Your task to perform on an android device: snooze an email in the gmail app Image 0: 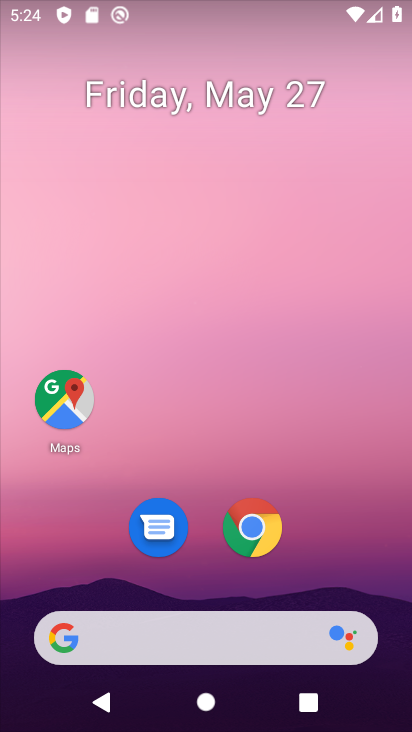
Step 0: drag from (319, 570) to (278, 214)
Your task to perform on an android device: snooze an email in the gmail app Image 1: 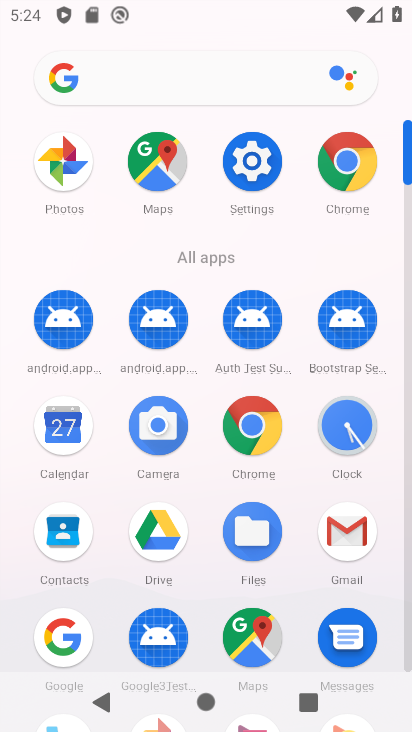
Step 1: click (347, 538)
Your task to perform on an android device: snooze an email in the gmail app Image 2: 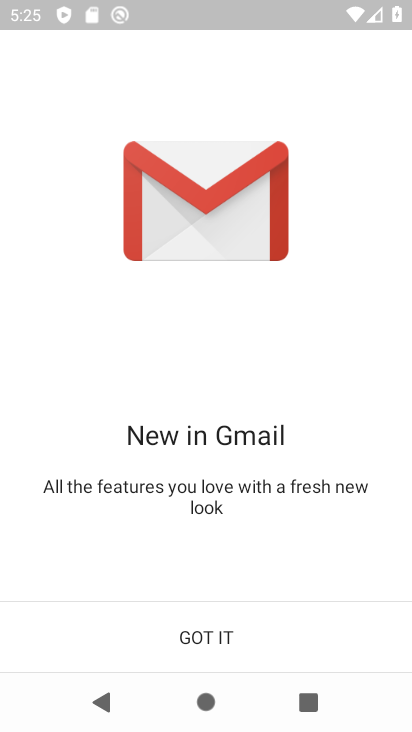
Step 2: click (220, 640)
Your task to perform on an android device: snooze an email in the gmail app Image 3: 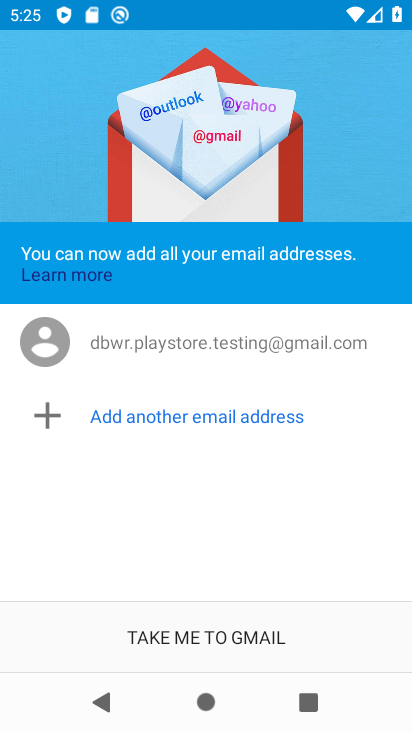
Step 3: click (220, 640)
Your task to perform on an android device: snooze an email in the gmail app Image 4: 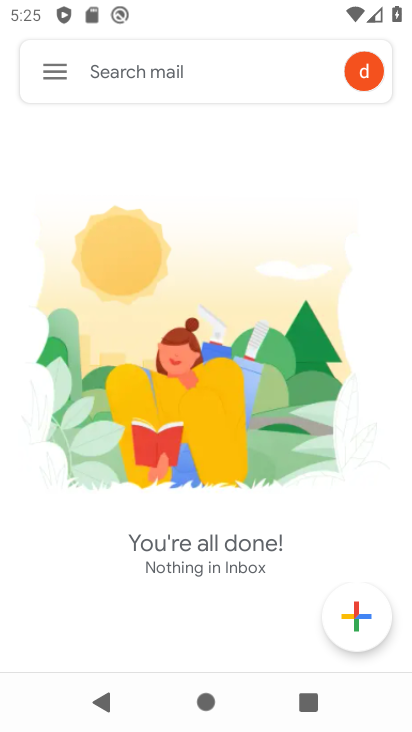
Step 4: click (61, 70)
Your task to perform on an android device: snooze an email in the gmail app Image 5: 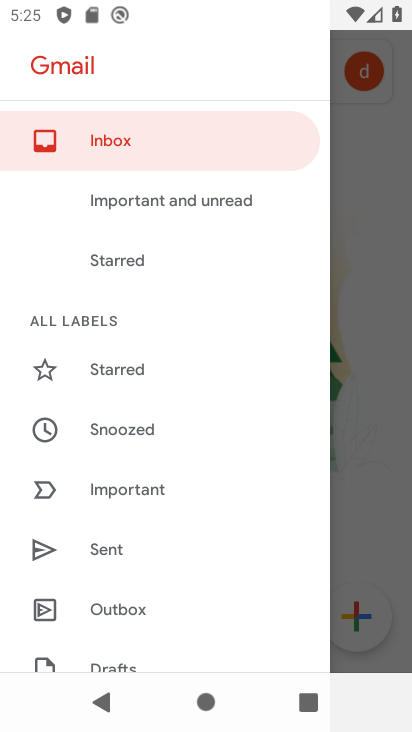
Step 5: drag from (149, 584) to (147, 170)
Your task to perform on an android device: snooze an email in the gmail app Image 6: 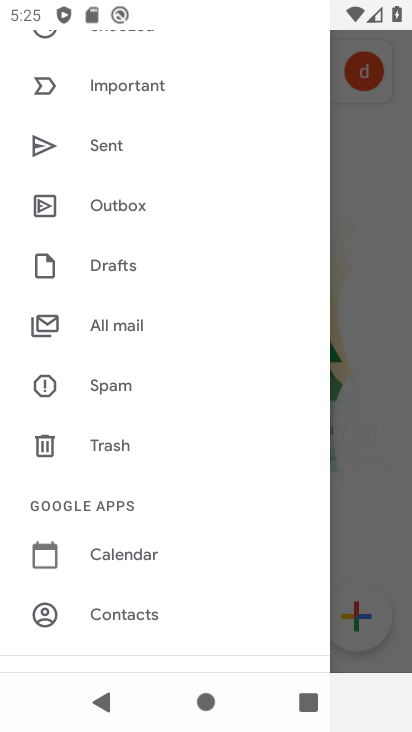
Step 6: click (120, 327)
Your task to perform on an android device: snooze an email in the gmail app Image 7: 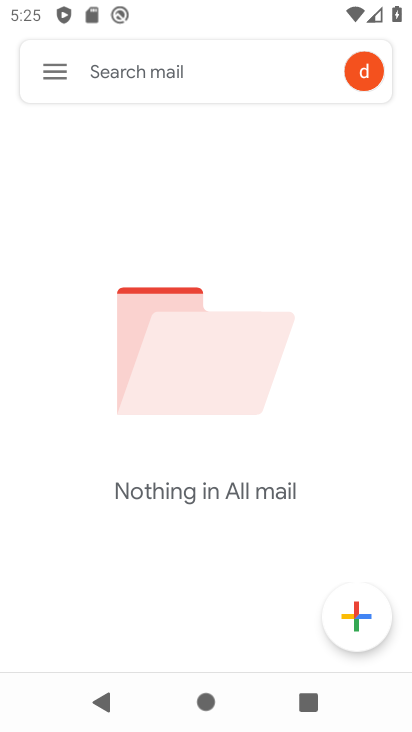
Step 7: task complete